Your task to perform on an android device: choose inbox layout in the gmail app Image 0: 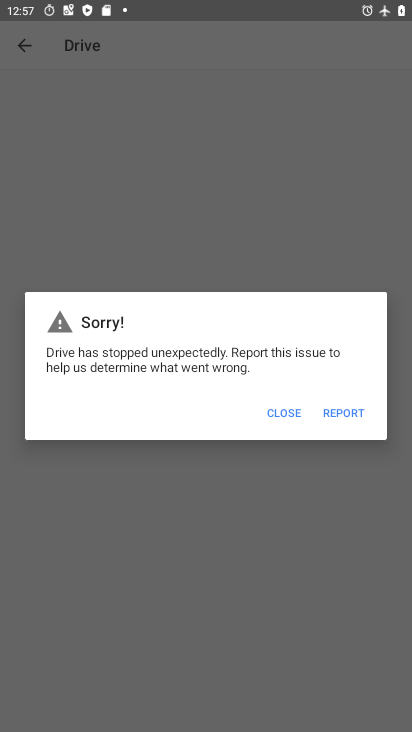
Step 0: press home button
Your task to perform on an android device: choose inbox layout in the gmail app Image 1: 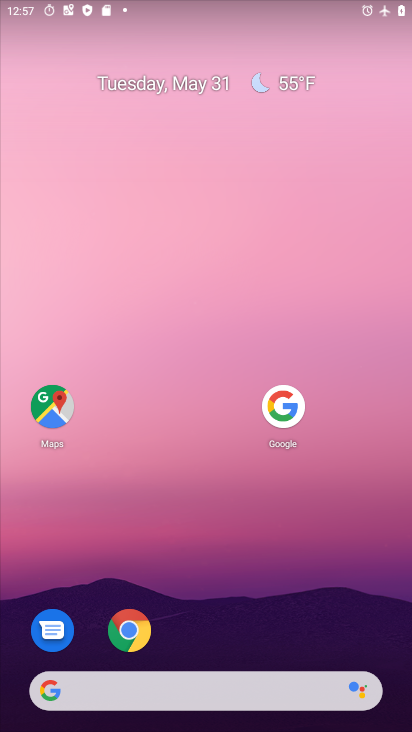
Step 1: drag from (208, 696) to (360, 473)
Your task to perform on an android device: choose inbox layout in the gmail app Image 2: 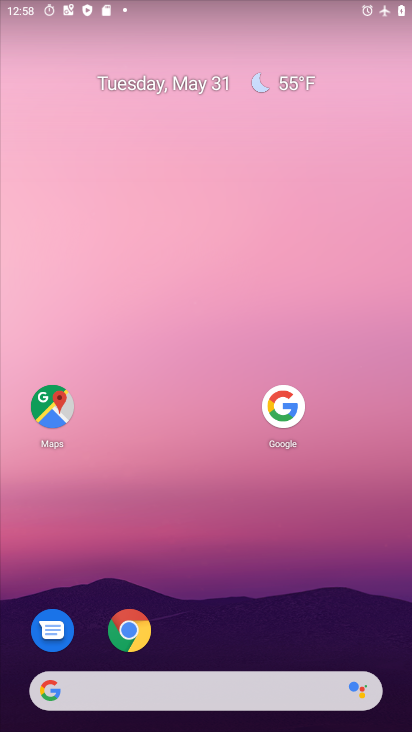
Step 2: drag from (208, 702) to (335, 151)
Your task to perform on an android device: choose inbox layout in the gmail app Image 3: 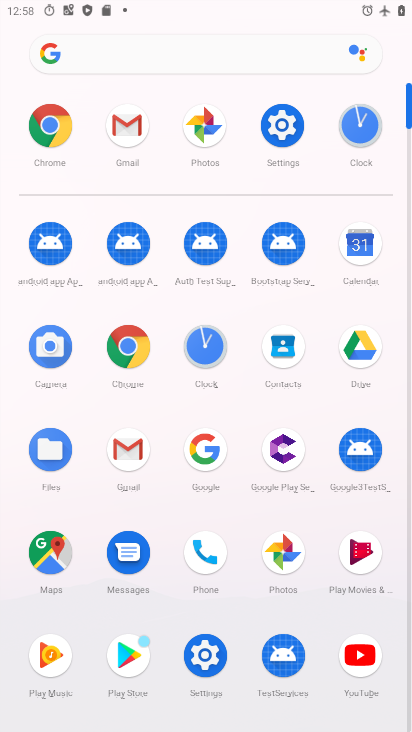
Step 3: click (126, 131)
Your task to perform on an android device: choose inbox layout in the gmail app Image 4: 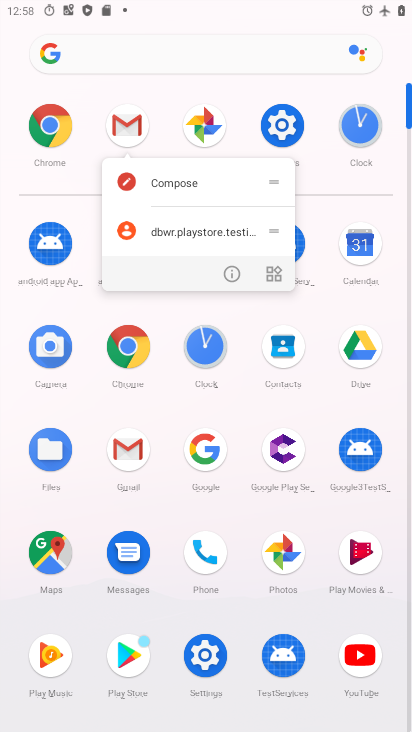
Step 4: click (140, 119)
Your task to perform on an android device: choose inbox layout in the gmail app Image 5: 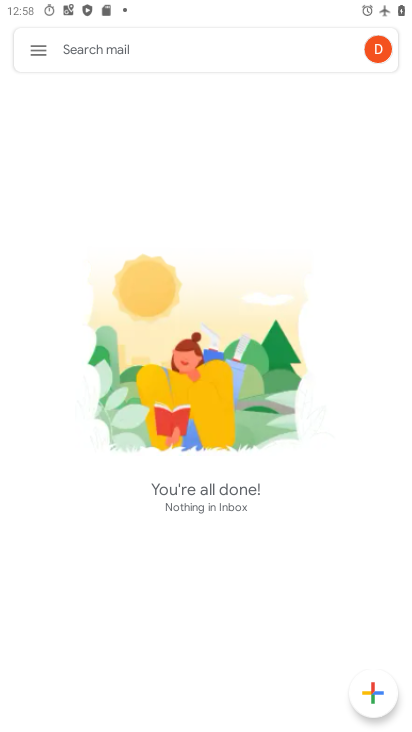
Step 5: click (47, 50)
Your task to perform on an android device: choose inbox layout in the gmail app Image 6: 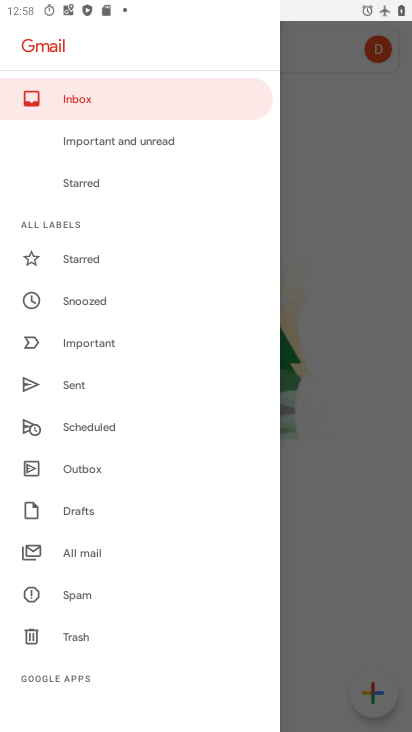
Step 6: drag from (181, 495) to (224, 235)
Your task to perform on an android device: choose inbox layout in the gmail app Image 7: 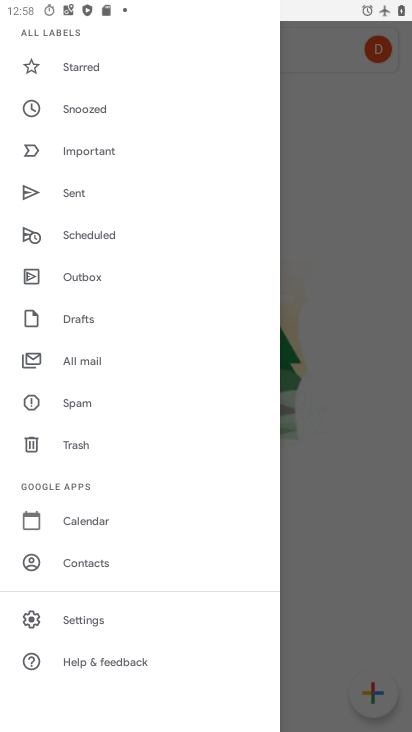
Step 7: click (93, 626)
Your task to perform on an android device: choose inbox layout in the gmail app Image 8: 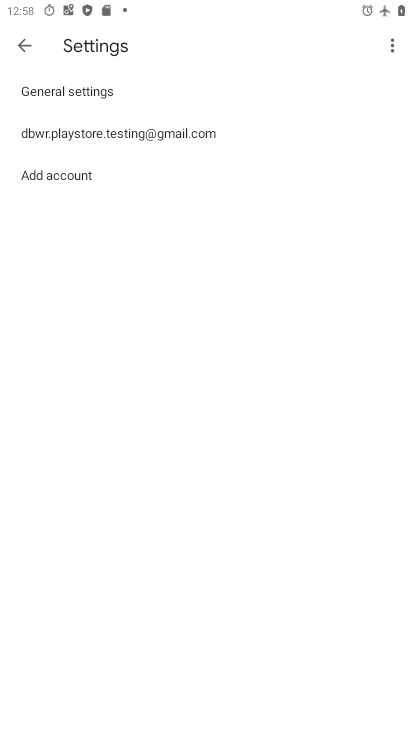
Step 8: click (183, 125)
Your task to perform on an android device: choose inbox layout in the gmail app Image 9: 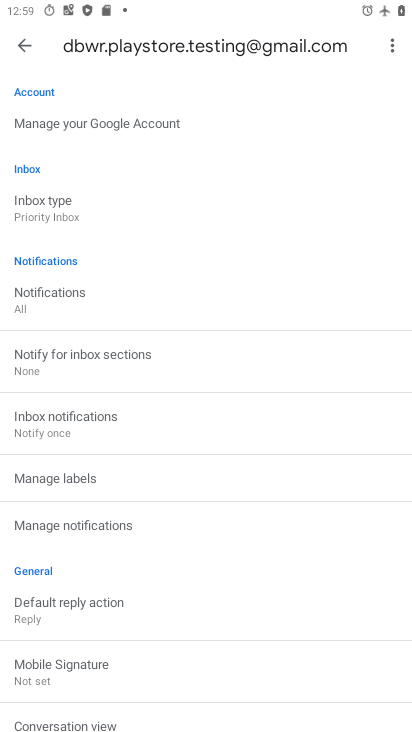
Step 9: click (62, 205)
Your task to perform on an android device: choose inbox layout in the gmail app Image 10: 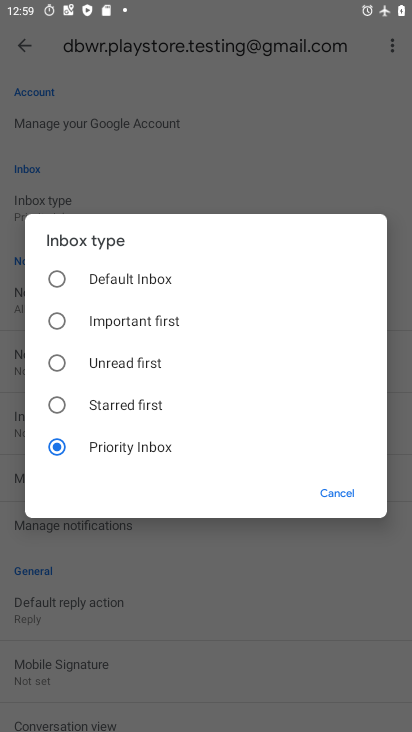
Step 10: click (64, 318)
Your task to perform on an android device: choose inbox layout in the gmail app Image 11: 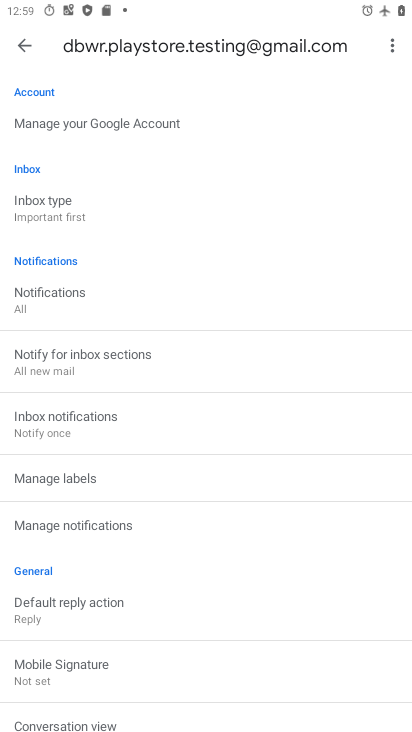
Step 11: task complete